Your task to perform on an android device: turn off smart reply in the gmail app Image 0: 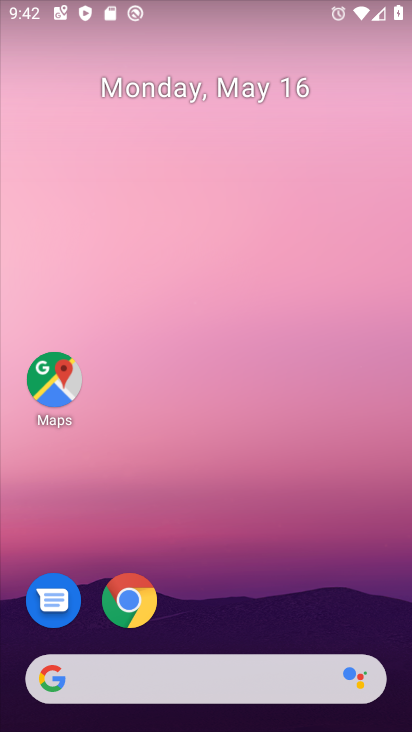
Step 0: drag from (178, 634) to (205, 46)
Your task to perform on an android device: turn off smart reply in the gmail app Image 1: 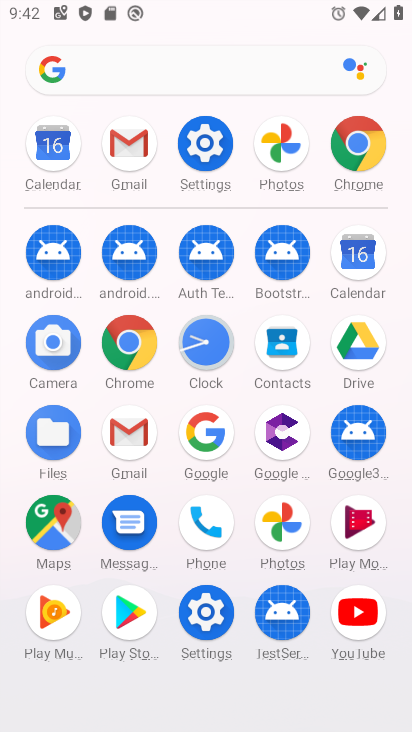
Step 1: click (140, 426)
Your task to perform on an android device: turn off smart reply in the gmail app Image 2: 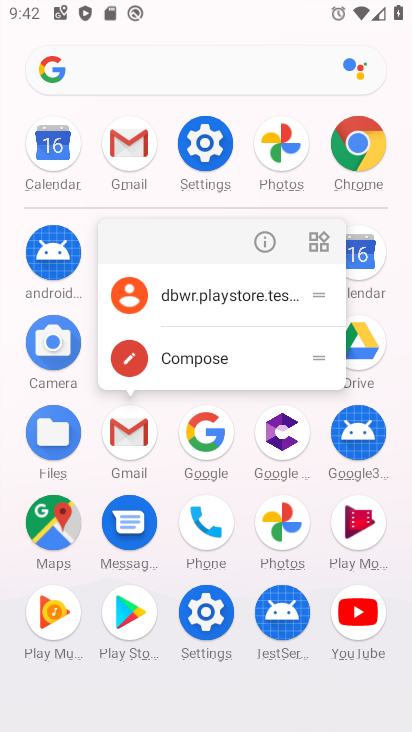
Step 2: click (252, 243)
Your task to perform on an android device: turn off smart reply in the gmail app Image 3: 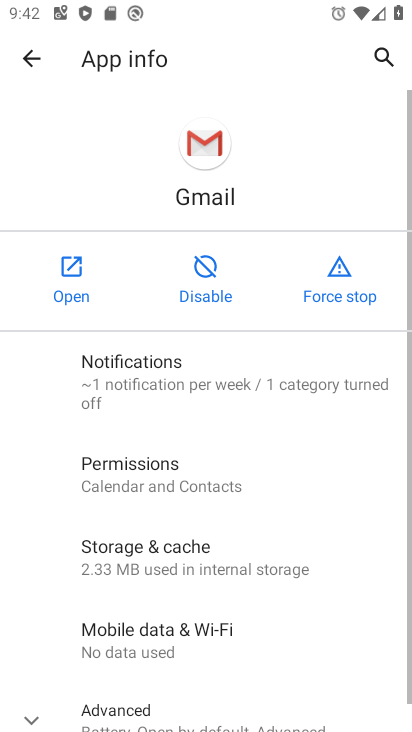
Step 3: click (70, 266)
Your task to perform on an android device: turn off smart reply in the gmail app Image 4: 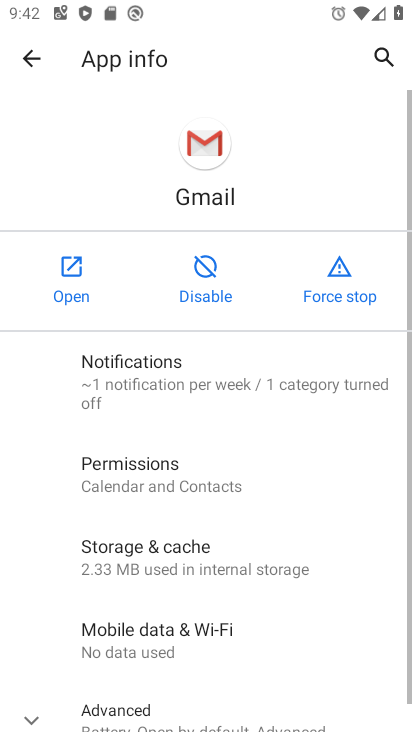
Step 4: click (70, 266)
Your task to perform on an android device: turn off smart reply in the gmail app Image 5: 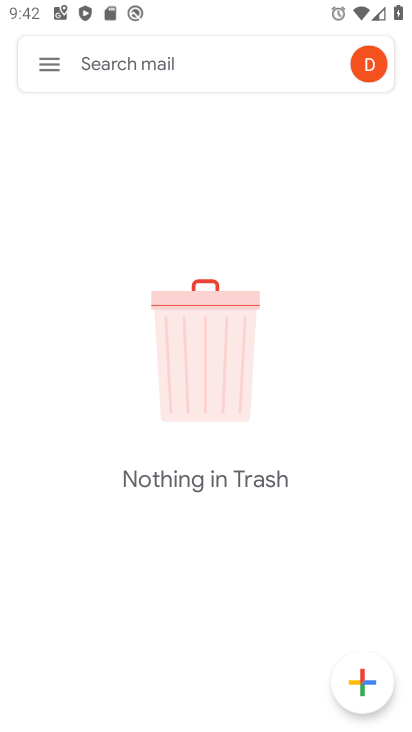
Step 5: click (61, 52)
Your task to perform on an android device: turn off smart reply in the gmail app Image 6: 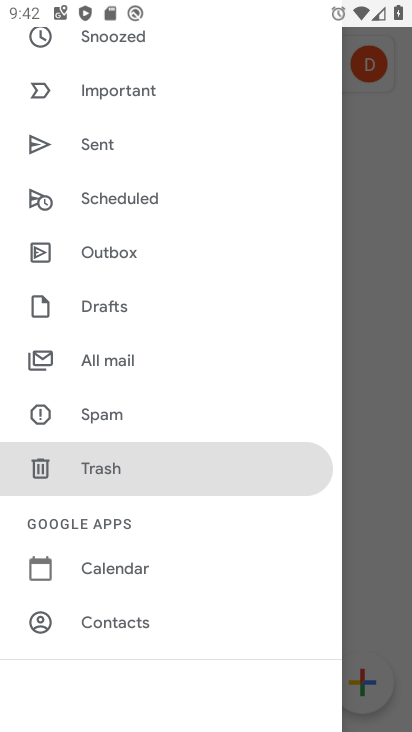
Step 6: click (124, 453)
Your task to perform on an android device: turn off smart reply in the gmail app Image 7: 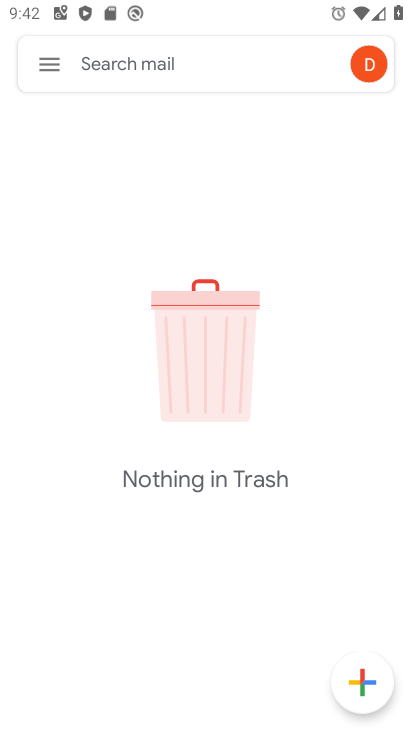
Step 7: drag from (124, 450) to (165, 7)
Your task to perform on an android device: turn off smart reply in the gmail app Image 8: 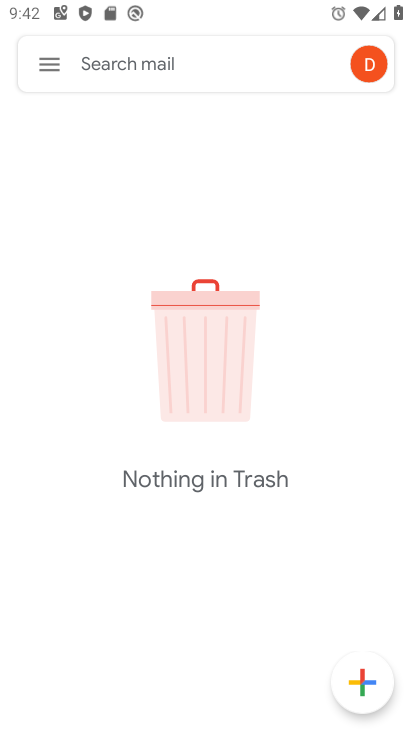
Step 8: click (46, 60)
Your task to perform on an android device: turn off smart reply in the gmail app Image 9: 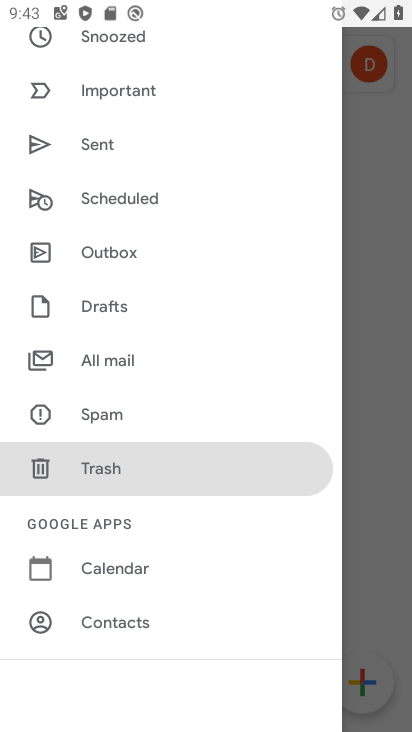
Step 9: drag from (124, 589) to (135, 168)
Your task to perform on an android device: turn off smart reply in the gmail app Image 10: 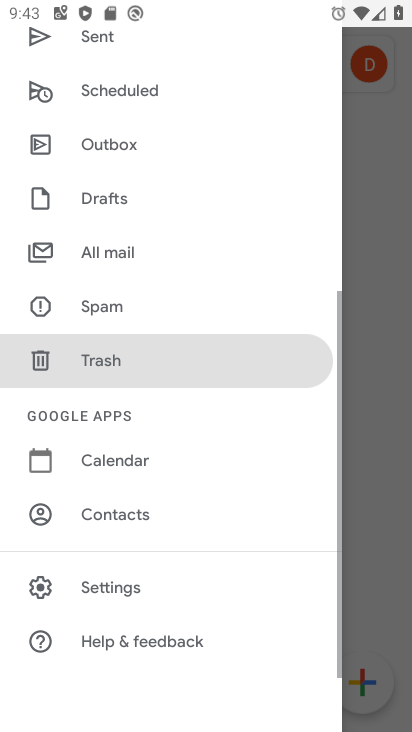
Step 10: click (131, 582)
Your task to perform on an android device: turn off smart reply in the gmail app Image 11: 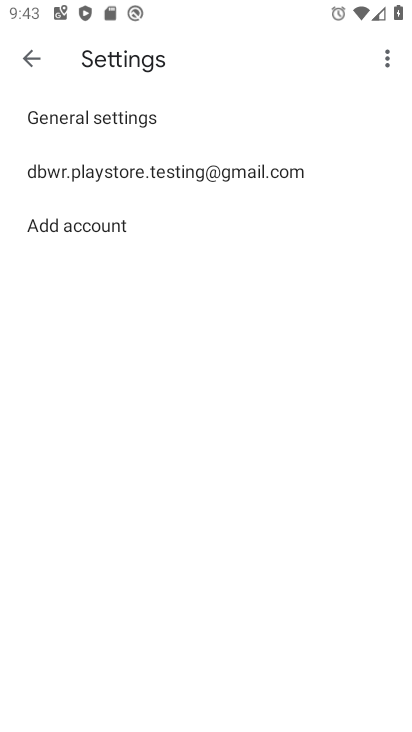
Step 11: click (193, 168)
Your task to perform on an android device: turn off smart reply in the gmail app Image 12: 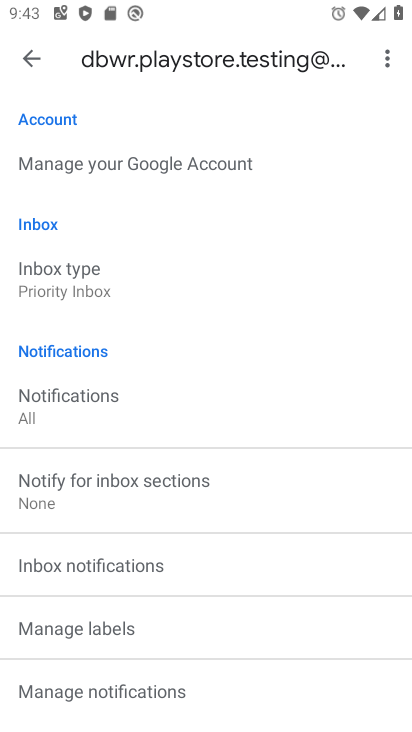
Step 12: task complete